Your task to perform on an android device: turn off airplane mode Image 0: 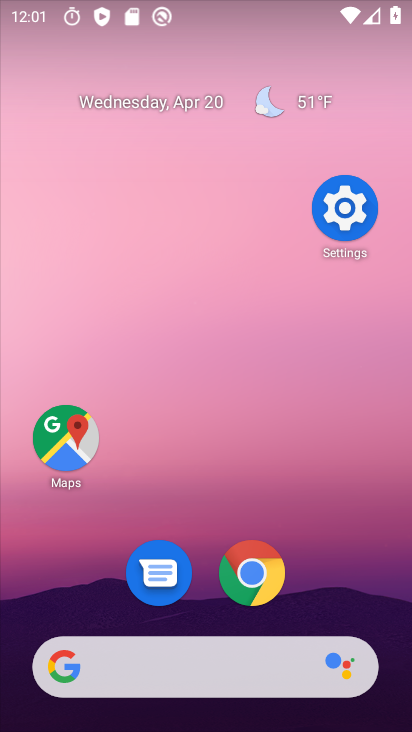
Step 0: drag from (345, 532) to (306, 97)
Your task to perform on an android device: turn off airplane mode Image 1: 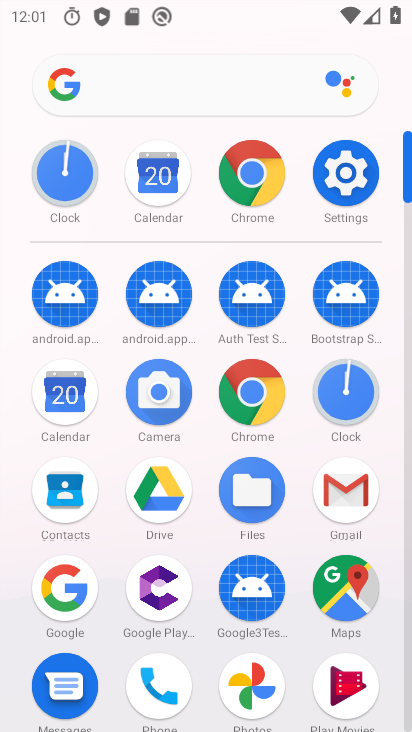
Step 1: click (346, 200)
Your task to perform on an android device: turn off airplane mode Image 2: 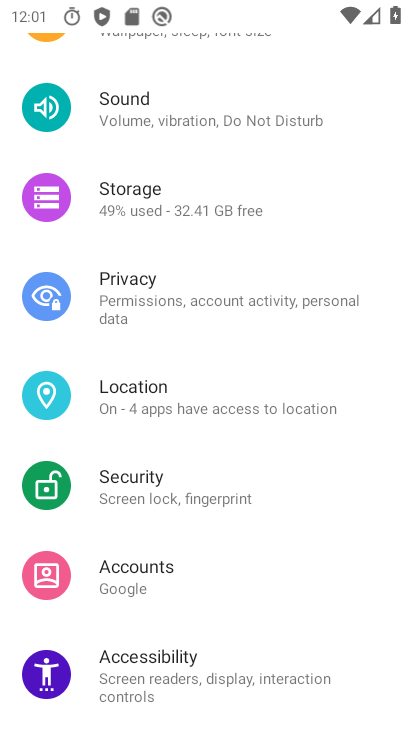
Step 2: drag from (286, 127) to (288, 622)
Your task to perform on an android device: turn off airplane mode Image 3: 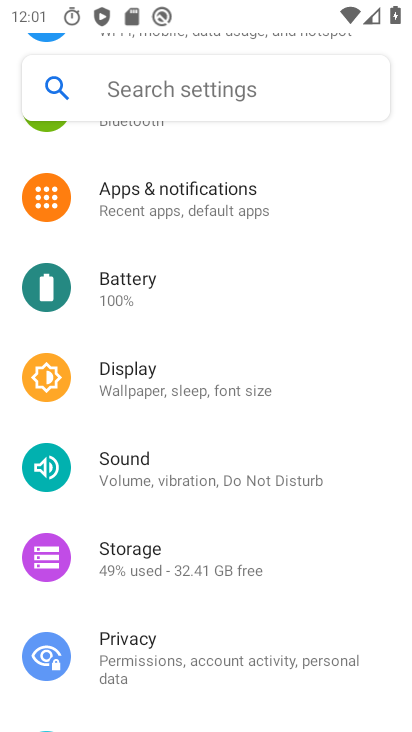
Step 3: drag from (274, 301) to (268, 593)
Your task to perform on an android device: turn off airplane mode Image 4: 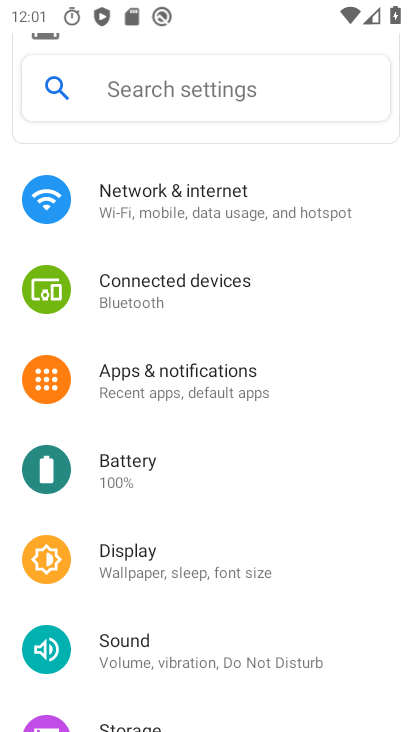
Step 4: click (251, 205)
Your task to perform on an android device: turn off airplane mode Image 5: 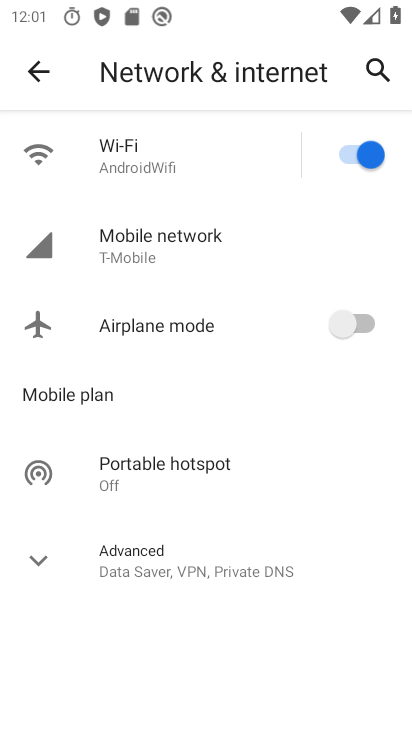
Step 5: click (367, 319)
Your task to perform on an android device: turn off airplane mode Image 6: 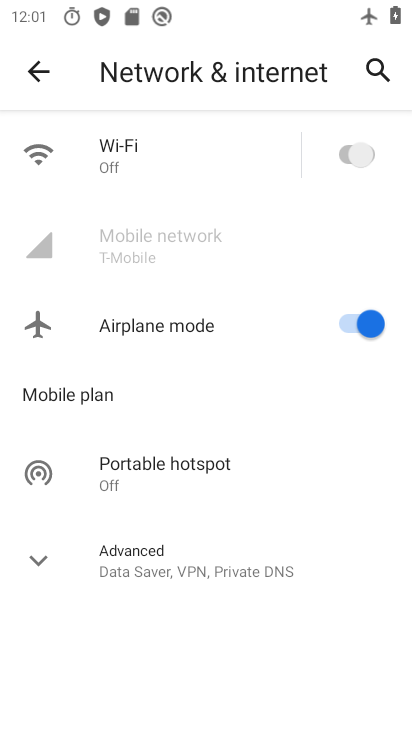
Step 6: click (368, 318)
Your task to perform on an android device: turn off airplane mode Image 7: 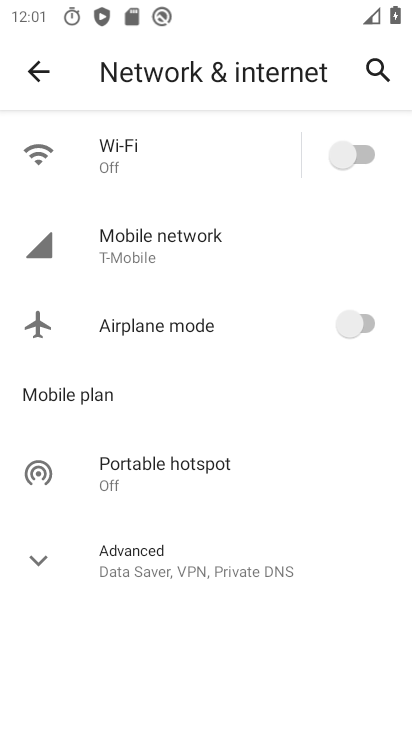
Step 7: click (368, 318)
Your task to perform on an android device: turn off airplane mode Image 8: 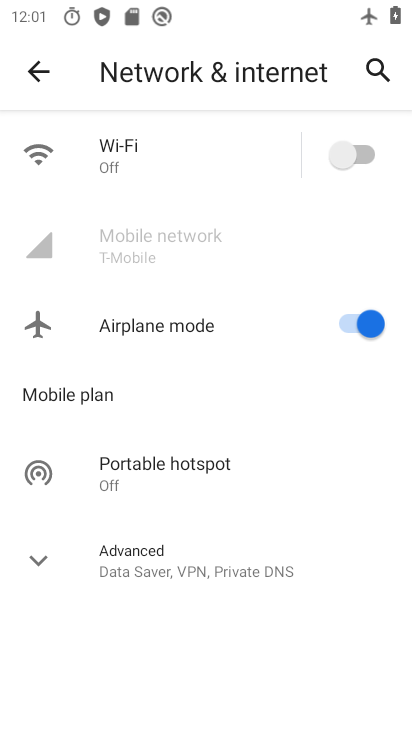
Step 8: click (372, 314)
Your task to perform on an android device: turn off airplane mode Image 9: 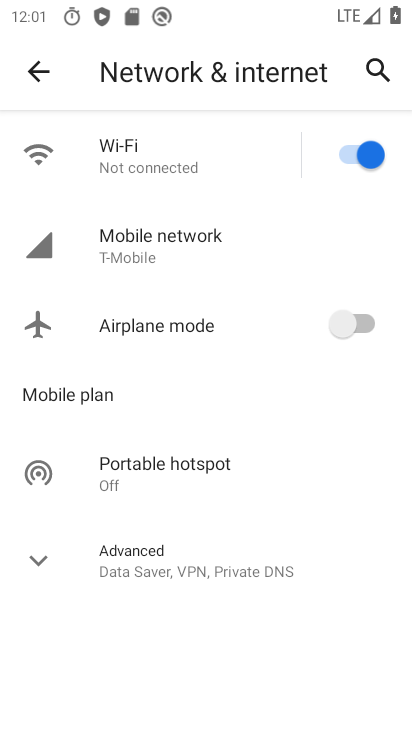
Step 9: task complete